Your task to perform on an android device: turn off airplane mode Image 0: 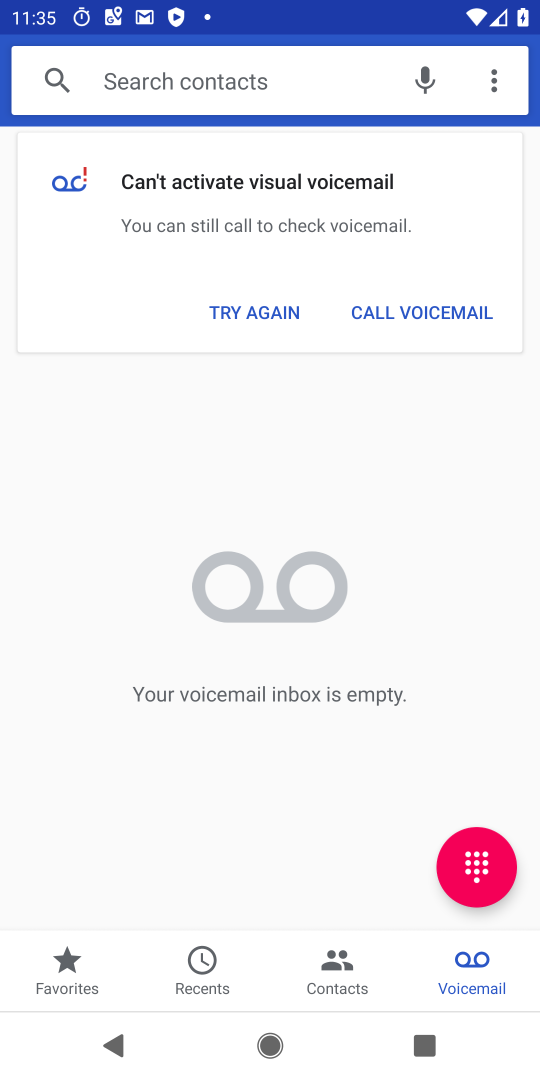
Step 0: press home button
Your task to perform on an android device: turn off airplane mode Image 1: 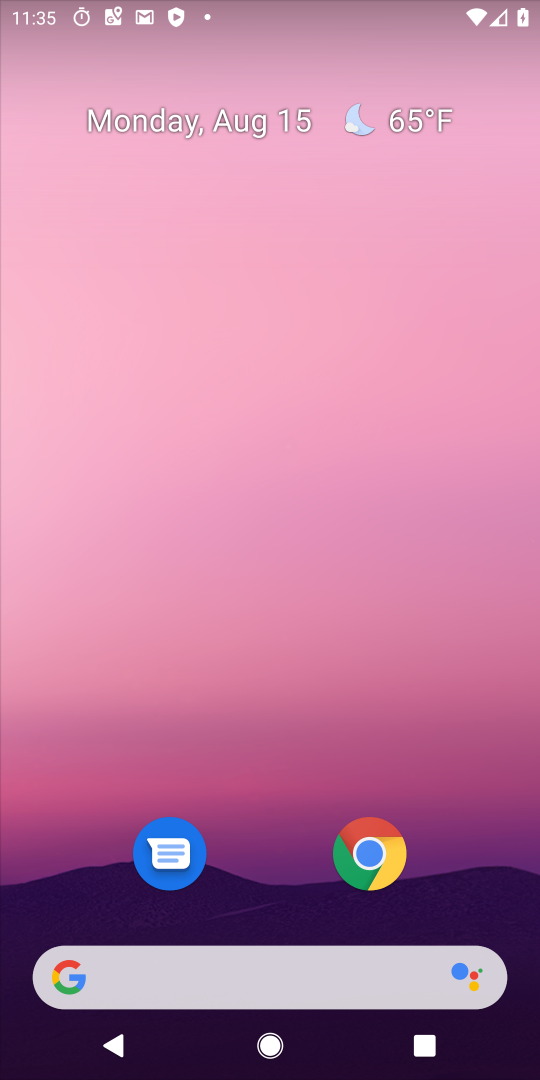
Step 1: drag from (311, 9) to (278, 865)
Your task to perform on an android device: turn off airplane mode Image 2: 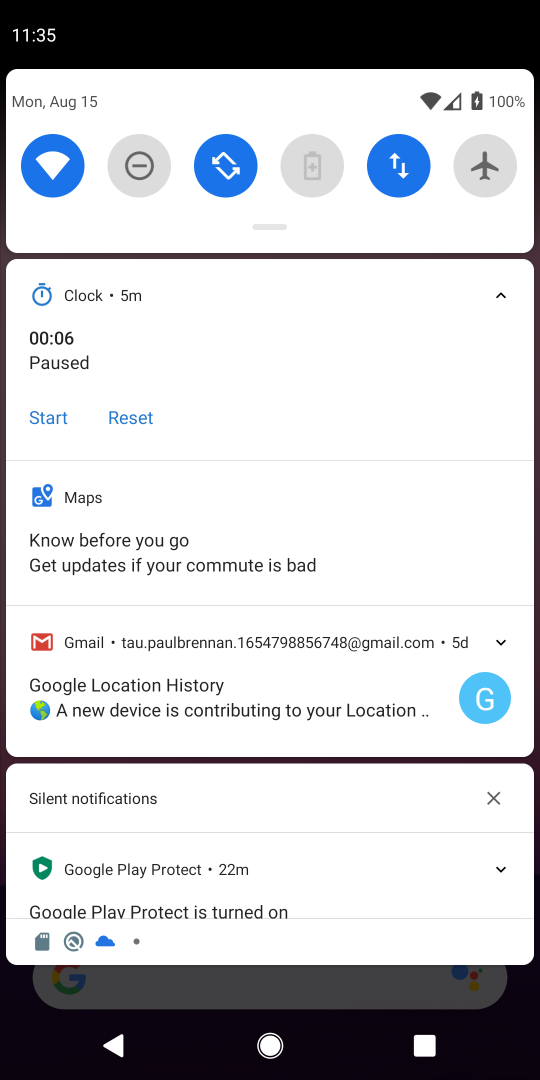
Step 2: drag from (207, 210) to (247, 801)
Your task to perform on an android device: turn off airplane mode Image 3: 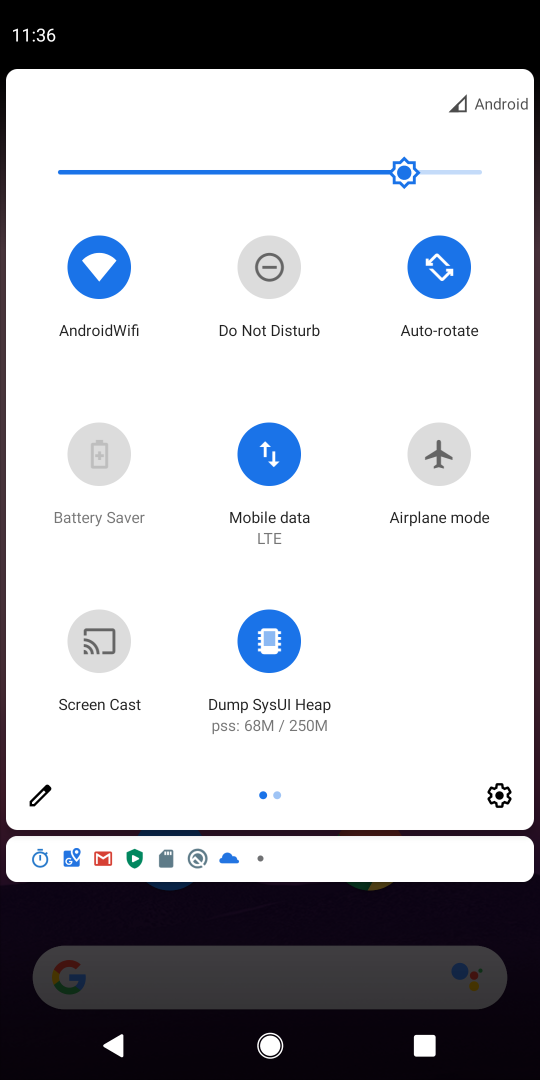
Step 3: drag from (439, 604) to (7, 691)
Your task to perform on an android device: turn off airplane mode Image 4: 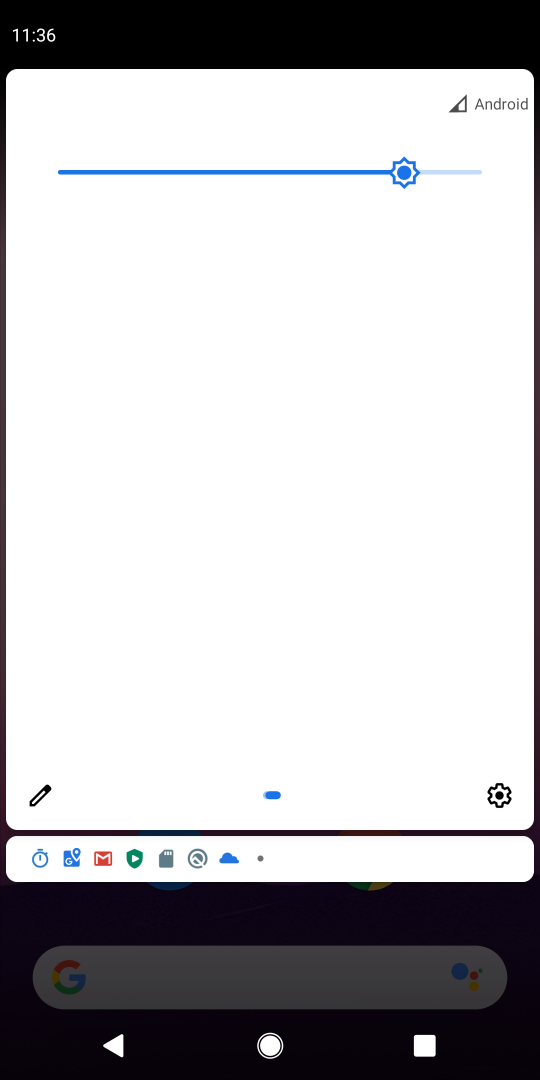
Step 4: click (36, 805)
Your task to perform on an android device: turn off airplane mode Image 5: 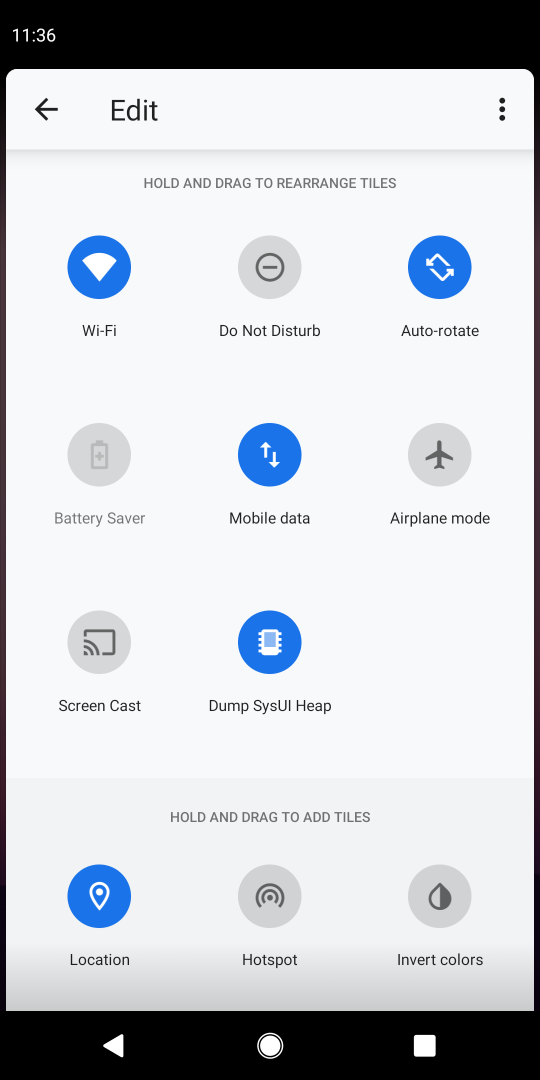
Step 5: task complete